Your task to perform on an android device: open the mobile data screen to see how much data has been used Image 0: 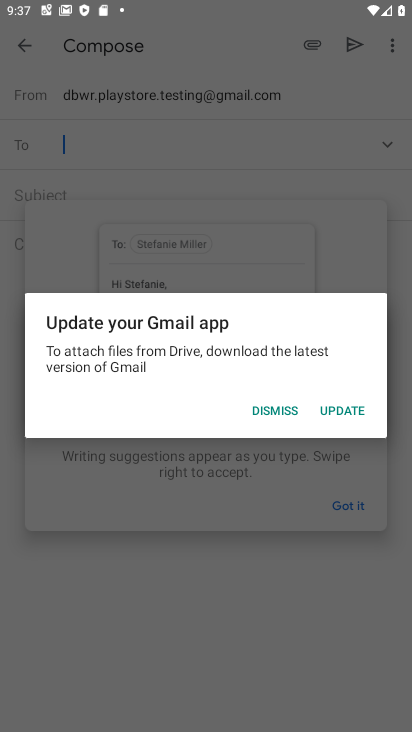
Step 0: press home button
Your task to perform on an android device: open the mobile data screen to see how much data has been used Image 1: 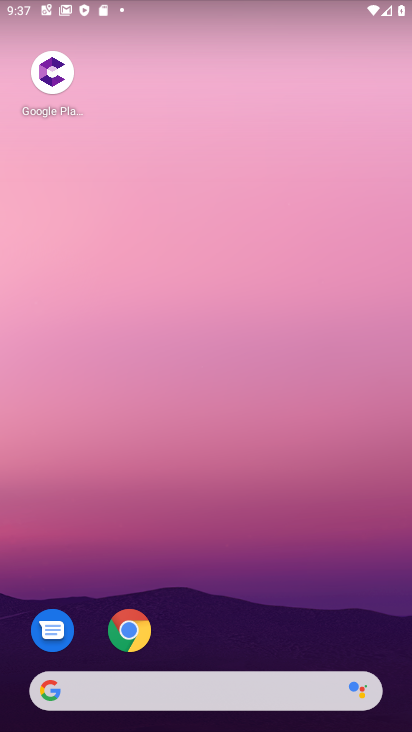
Step 1: drag from (288, 2) to (300, 447)
Your task to perform on an android device: open the mobile data screen to see how much data has been used Image 2: 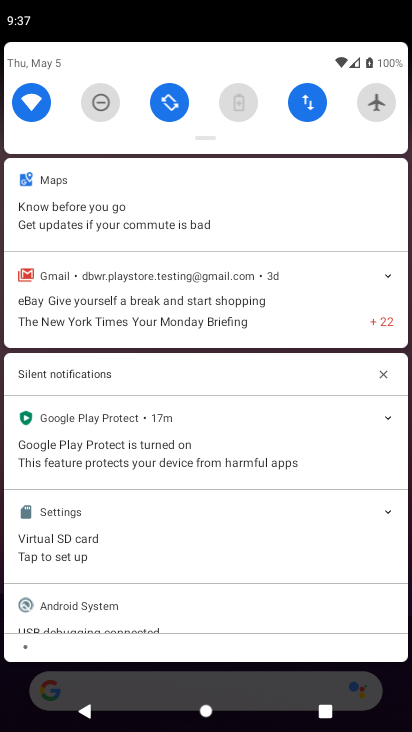
Step 2: click (300, 102)
Your task to perform on an android device: open the mobile data screen to see how much data has been used Image 3: 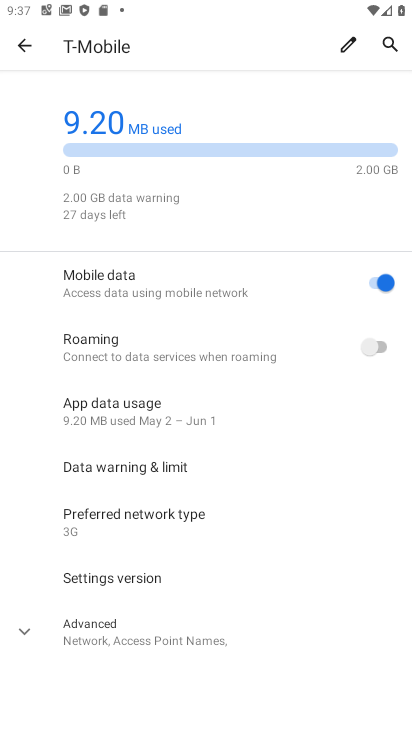
Step 3: task complete